Your task to perform on an android device: find which apps use the phone's location Image 0: 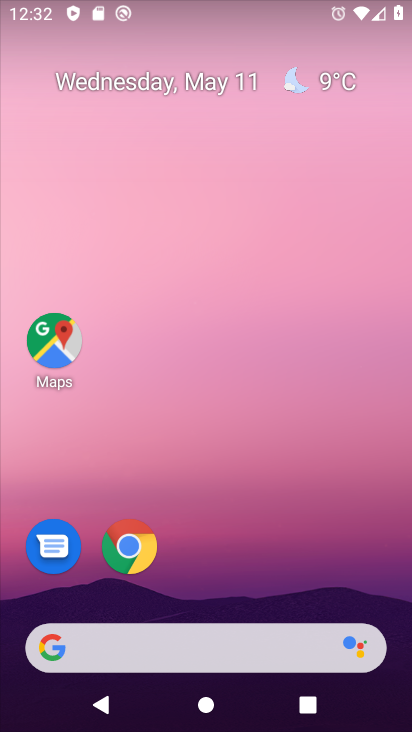
Step 0: drag from (207, 599) to (340, 215)
Your task to perform on an android device: find which apps use the phone's location Image 1: 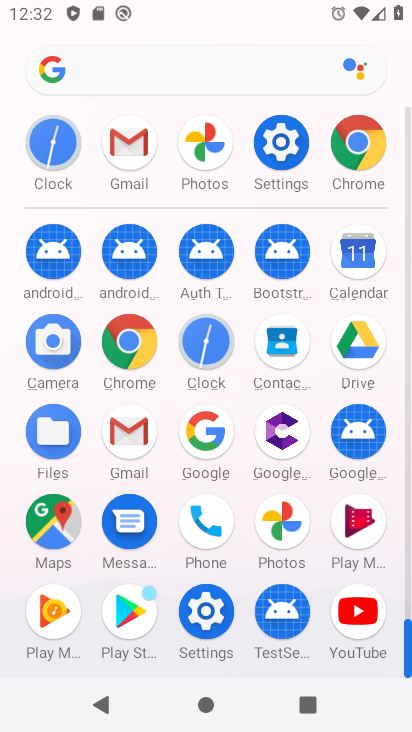
Step 1: drag from (159, 655) to (180, 416)
Your task to perform on an android device: find which apps use the phone's location Image 2: 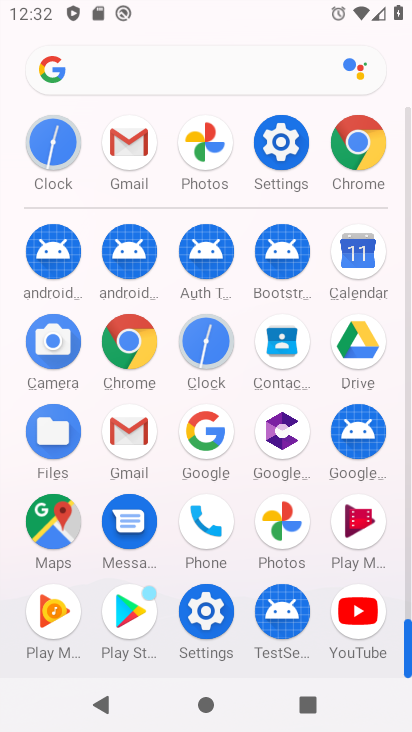
Step 2: click (197, 620)
Your task to perform on an android device: find which apps use the phone's location Image 3: 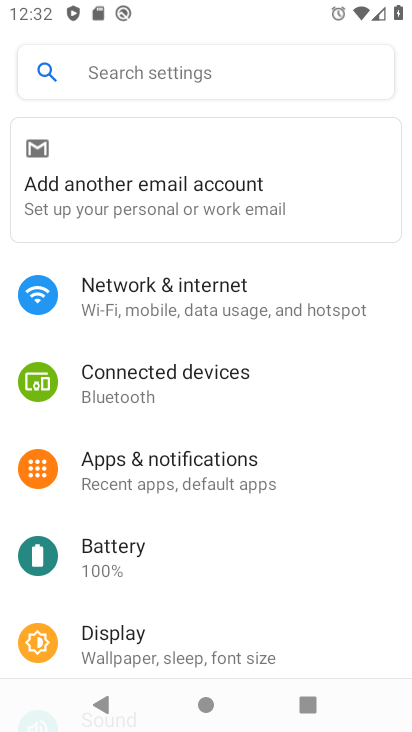
Step 3: drag from (191, 639) to (259, 221)
Your task to perform on an android device: find which apps use the phone's location Image 4: 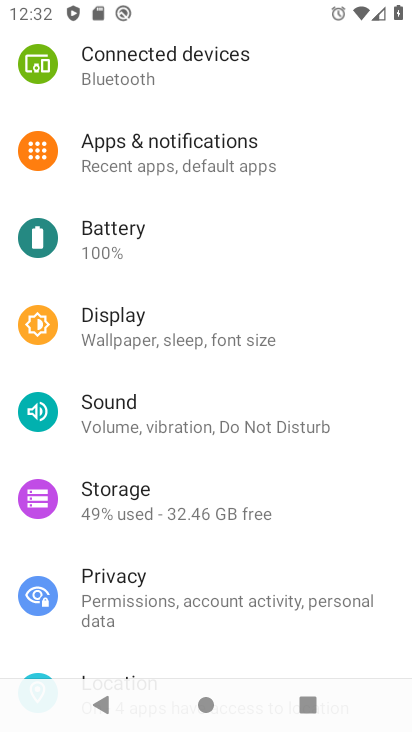
Step 4: drag from (144, 605) to (263, 284)
Your task to perform on an android device: find which apps use the phone's location Image 5: 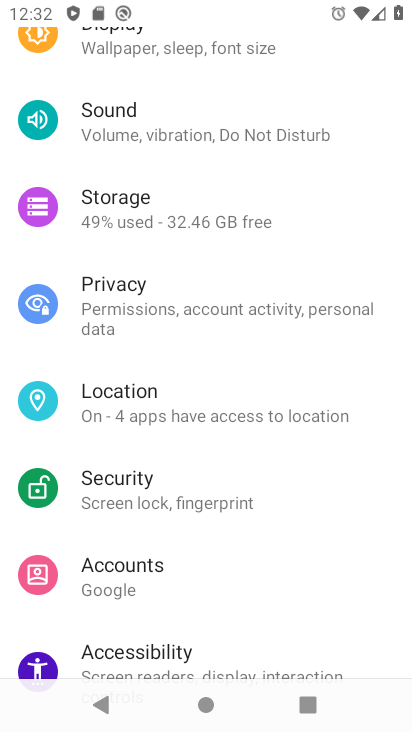
Step 5: click (158, 392)
Your task to perform on an android device: find which apps use the phone's location Image 6: 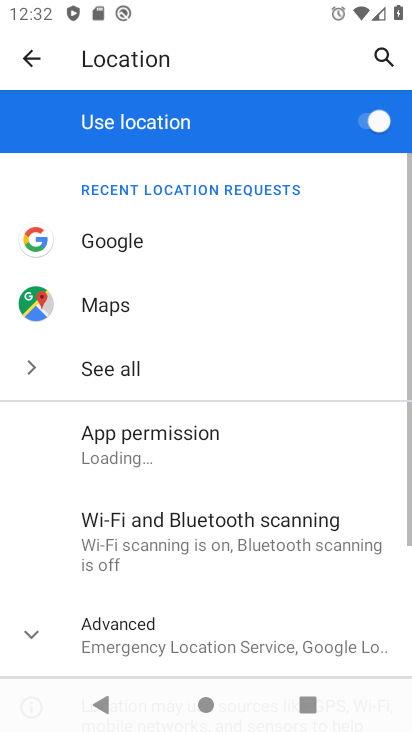
Step 6: drag from (197, 578) to (185, 338)
Your task to perform on an android device: find which apps use the phone's location Image 7: 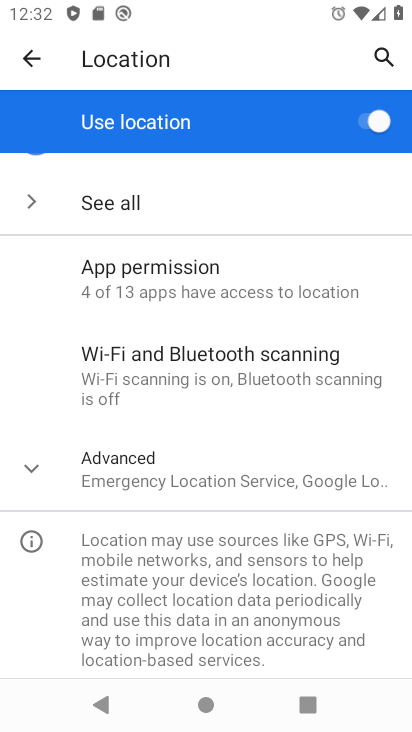
Step 7: click (186, 476)
Your task to perform on an android device: find which apps use the phone's location Image 8: 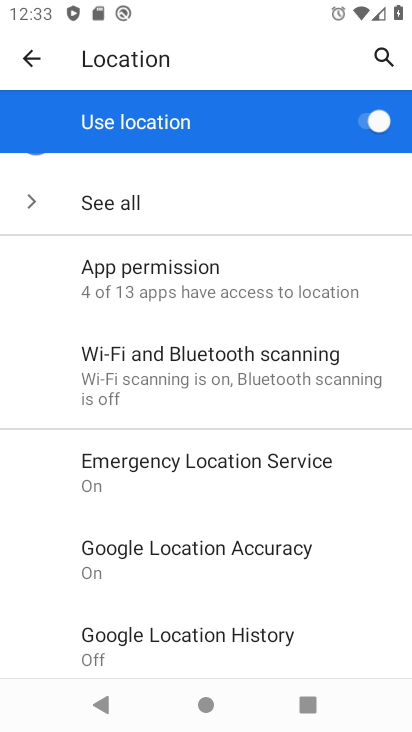
Step 8: click (132, 308)
Your task to perform on an android device: find which apps use the phone's location Image 9: 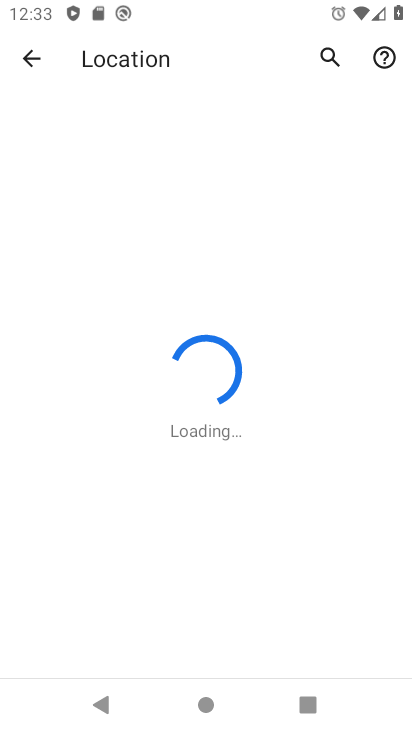
Step 9: task complete